Your task to perform on an android device: Open maps Image 0: 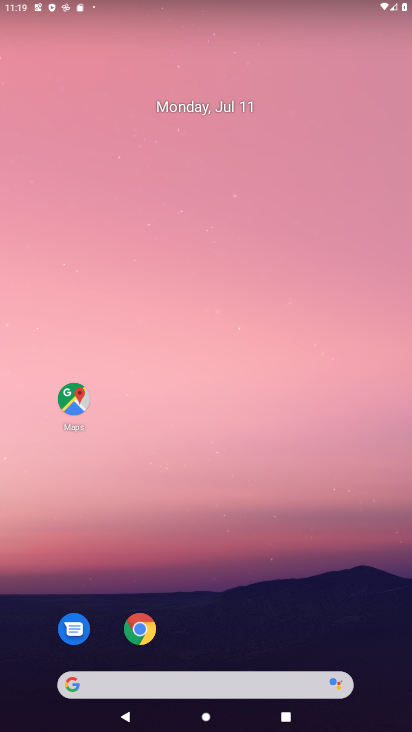
Step 0: click (54, 412)
Your task to perform on an android device: Open maps Image 1: 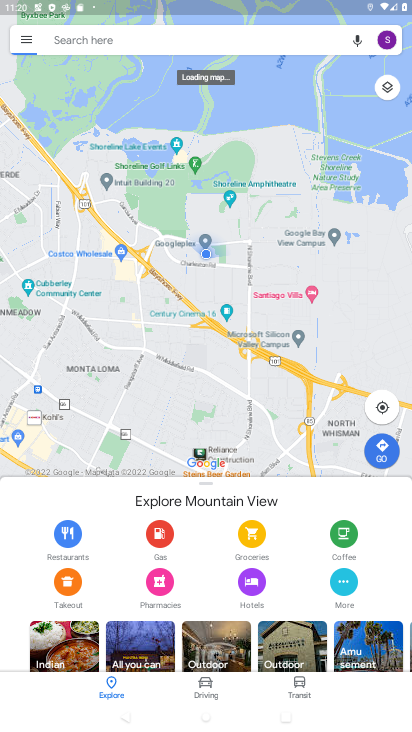
Step 1: task complete